Your task to perform on an android device: Is it going to rain today? Image 0: 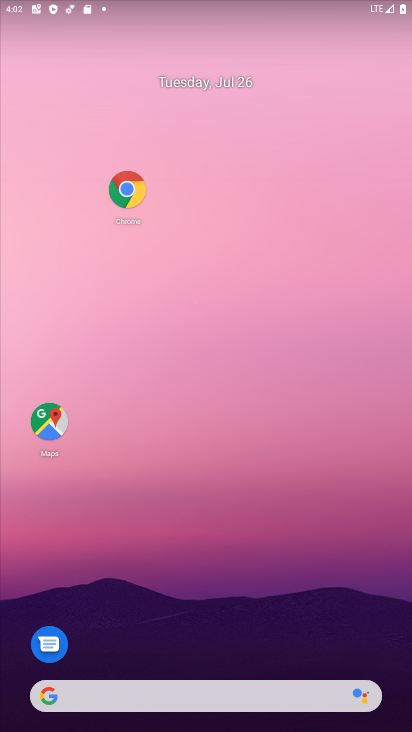
Step 0: drag from (160, 674) to (193, 132)
Your task to perform on an android device: Is it going to rain today? Image 1: 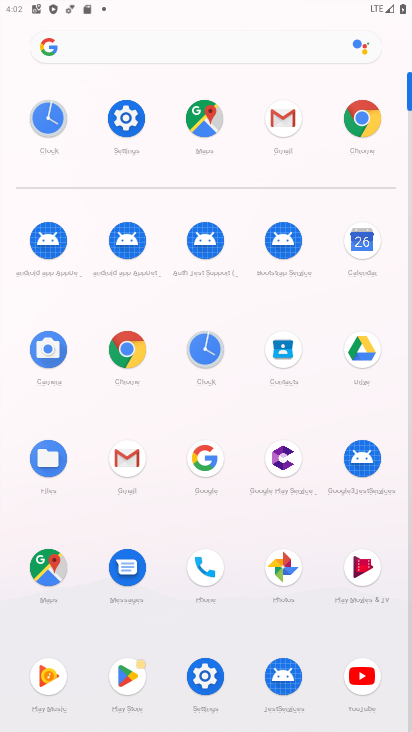
Step 1: click (200, 464)
Your task to perform on an android device: Is it going to rain today? Image 2: 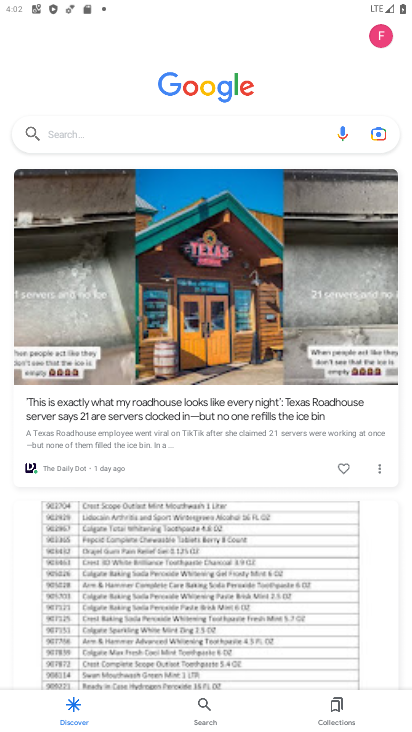
Step 2: click (66, 135)
Your task to perform on an android device: Is it going to rain today? Image 3: 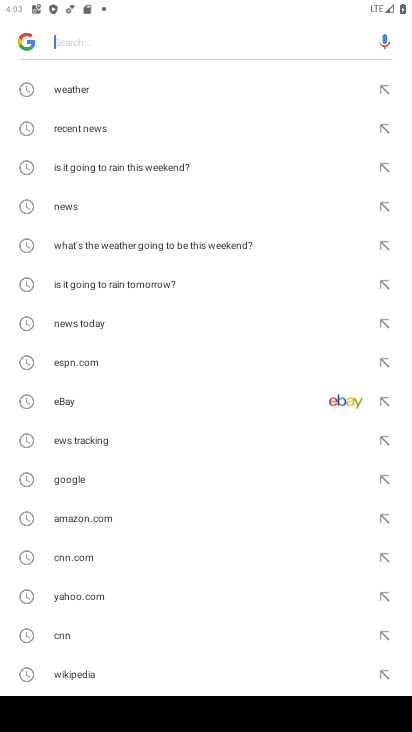
Step 3: drag from (113, 515) to (65, 128)
Your task to perform on an android device: Is it going to rain today? Image 4: 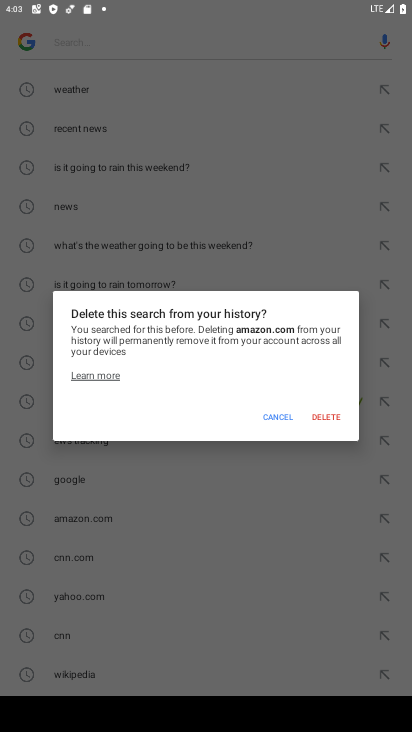
Step 4: click (273, 411)
Your task to perform on an android device: Is it going to rain today? Image 5: 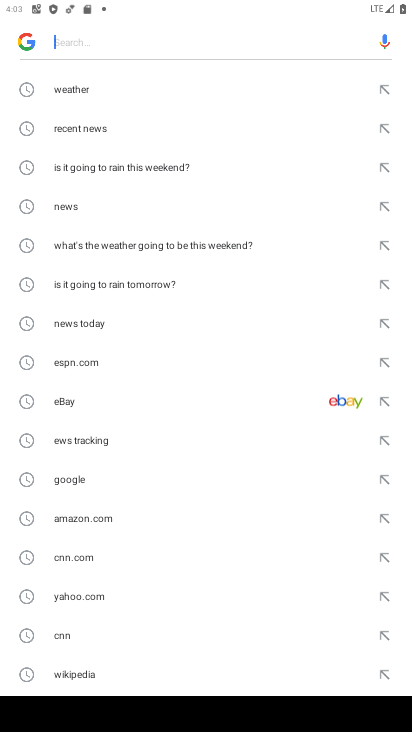
Step 5: drag from (112, 683) to (127, 152)
Your task to perform on an android device: Is it going to rain today? Image 6: 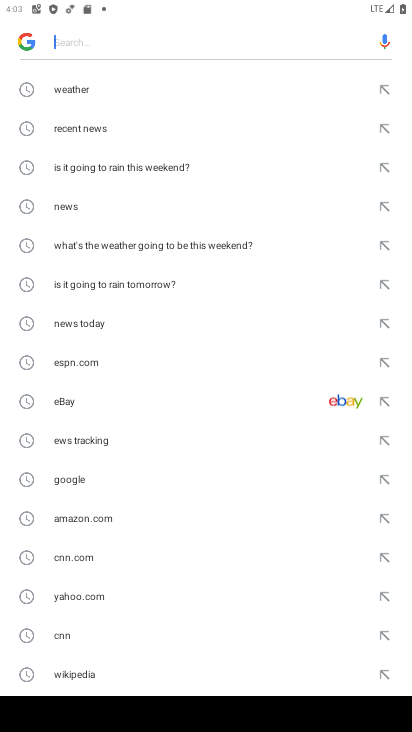
Step 6: drag from (108, 618) to (91, 139)
Your task to perform on an android device: Is it going to rain today? Image 7: 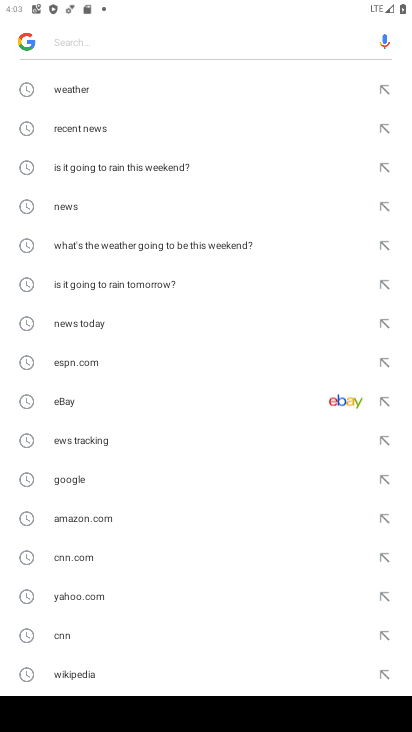
Step 7: drag from (79, 675) to (99, 88)
Your task to perform on an android device: Is it going to rain today? Image 8: 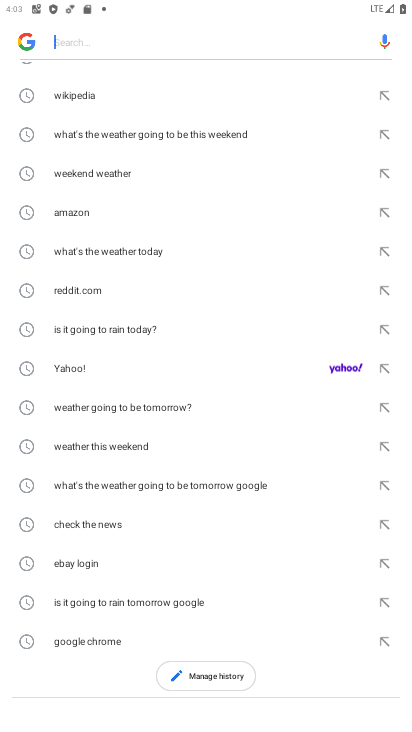
Step 8: click (128, 330)
Your task to perform on an android device: Is it going to rain today? Image 9: 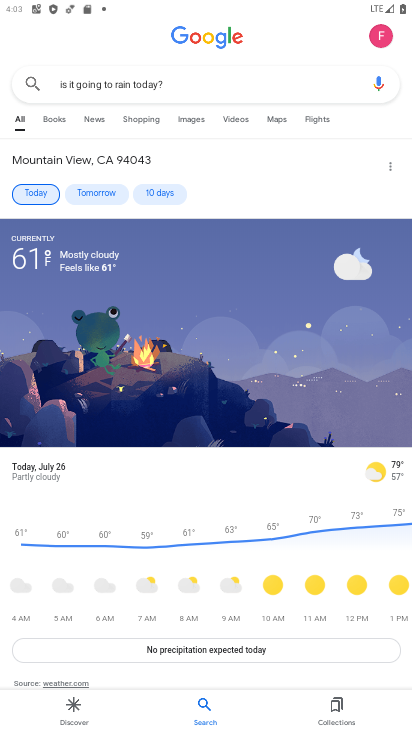
Step 9: task complete